Your task to perform on an android device: turn on improve location accuracy Image 0: 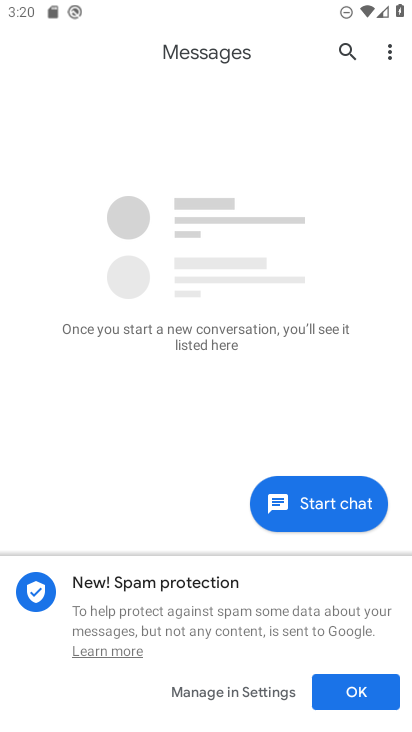
Step 0: press home button
Your task to perform on an android device: turn on improve location accuracy Image 1: 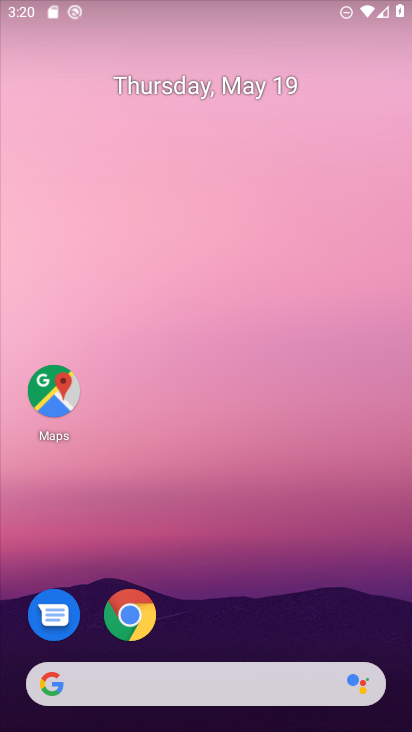
Step 1: drag from (284, 490) to (297, 206)
Your task to perform on an android device: turn on improve location accuracy Image 2: 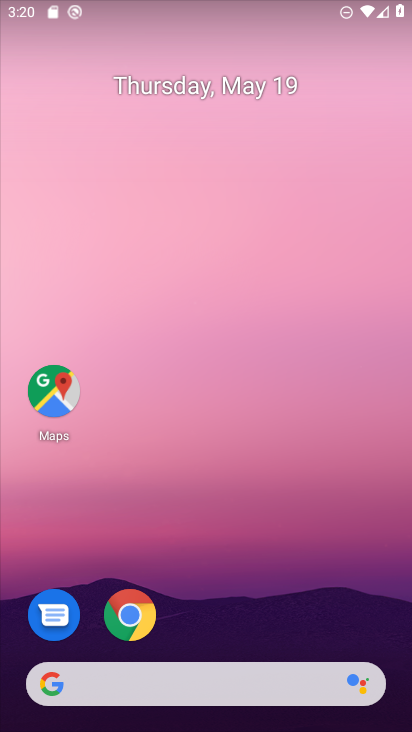
Step 2: drag from (230, 486) to (235, 253)
Your task to perform on an android device: turn on improve location accuracy Image 3: 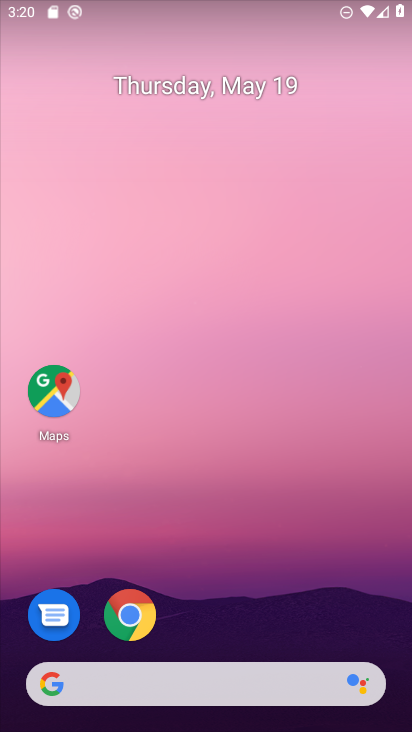
Step 3: drag from (266, 607) to (265, 328)
Your task to perform on an android device: turn on improve location accuracy Image 4: 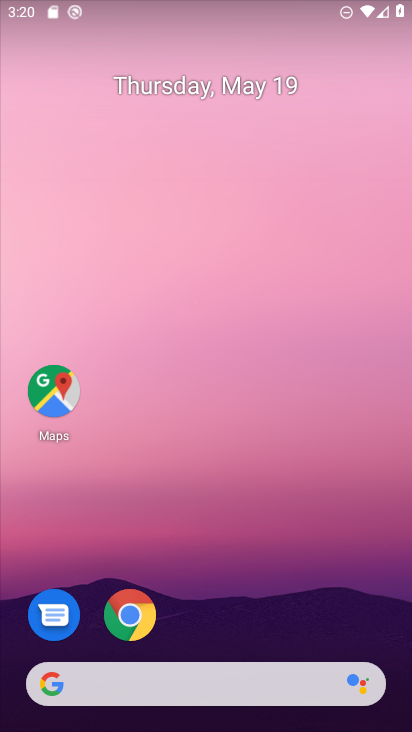
Step 4: drag from (283, 527) to (286, 228)
Your task to perform on an android device: turn on improve location accuracy Image 5: 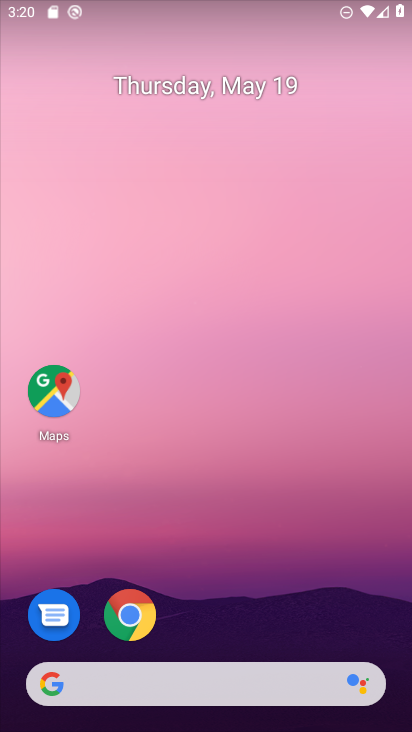
Step 5: drag from (226, 646) to (247, 183)
Your task to perform on an android device: turn on improve location accuracy Image 6: 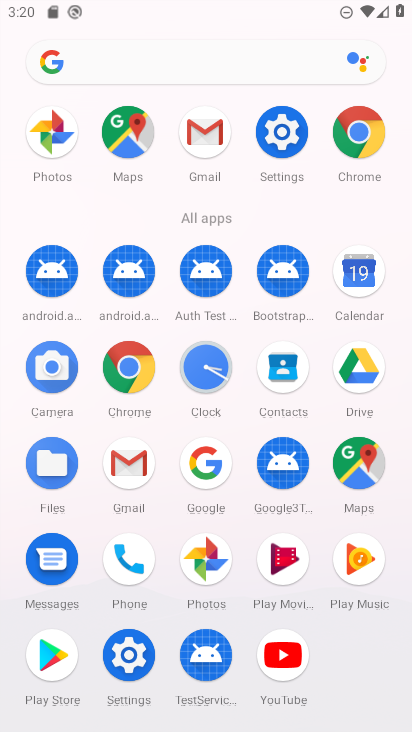
Step 6: click (274, 109)
Your task to perform on an android device: turn on improve location accuracy Image 7: 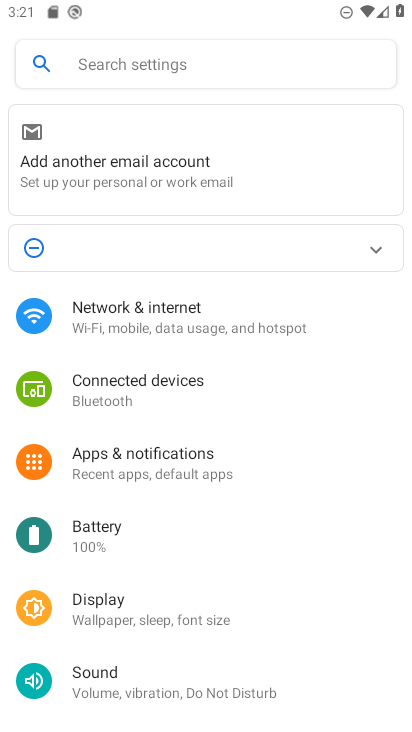
Step 7: drag from (198, 651) to (232, 373)
Your task to perform on an android device: turn on improve location accuracy Image 8: 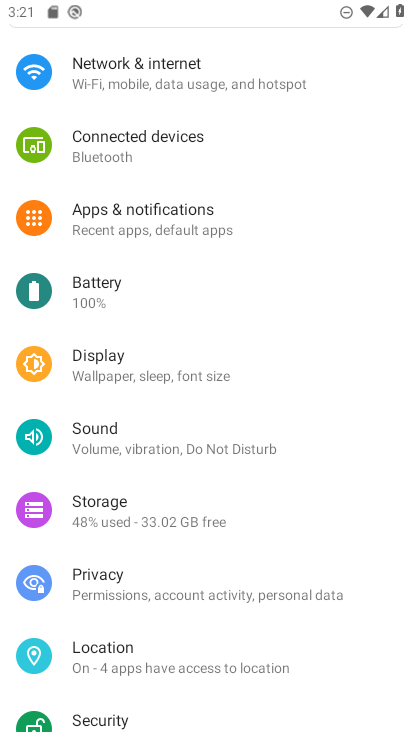
Step 8: click (145, 641)
Your task to perform on an android device: turn on improve location accuracy Image 9: 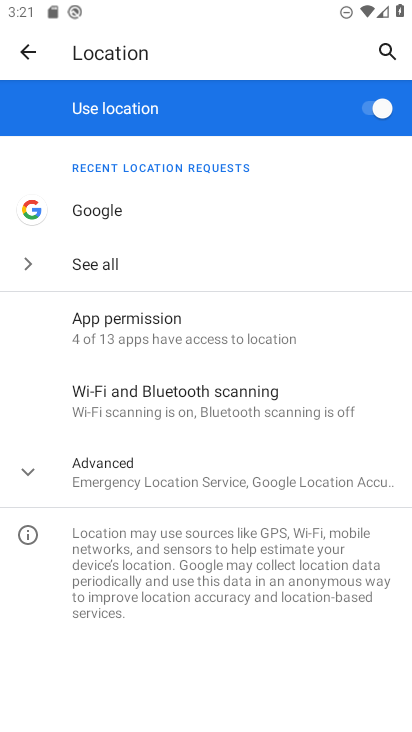
Step 9: click (120, 481)
Your task to perform on an android device: turn on improve location accuracy Image 10: 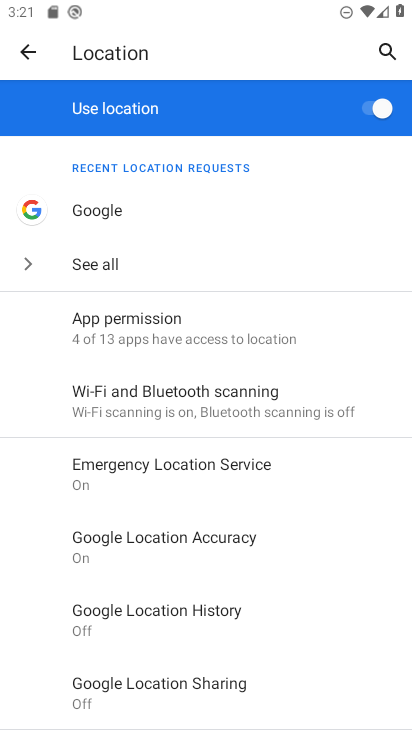
Step 10: click (162, 543)
Your task to perform on an android device: turn on improve location accuracy Image 11: 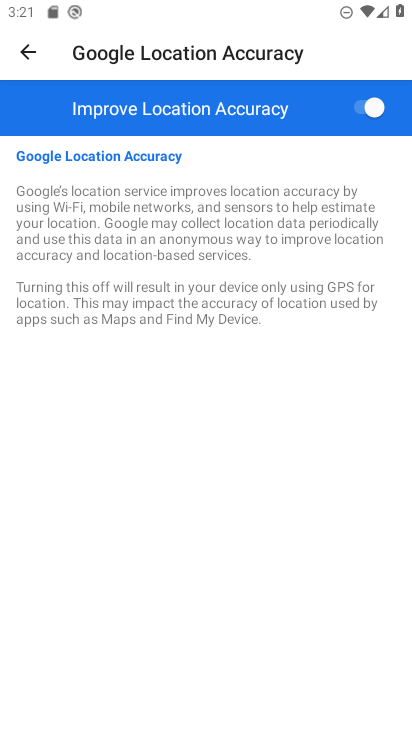
Step 11: task complete